Your task to perform on an android device: Open calendar and show me the first week of next month Image 0: 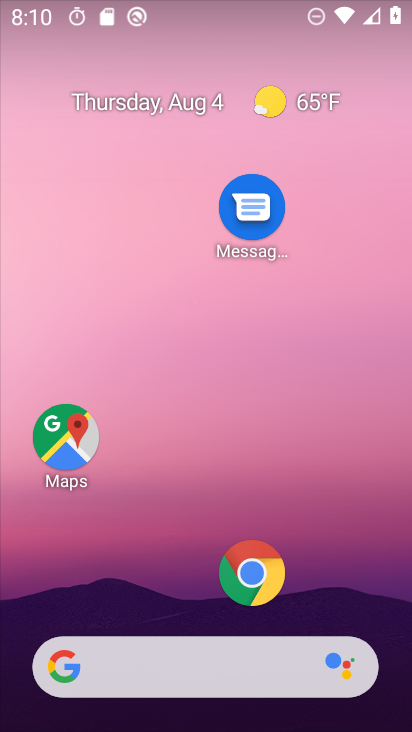
Step 0: press home button
Your task to perform on an android device: Open calendar and show me the first week of next month Image 1: 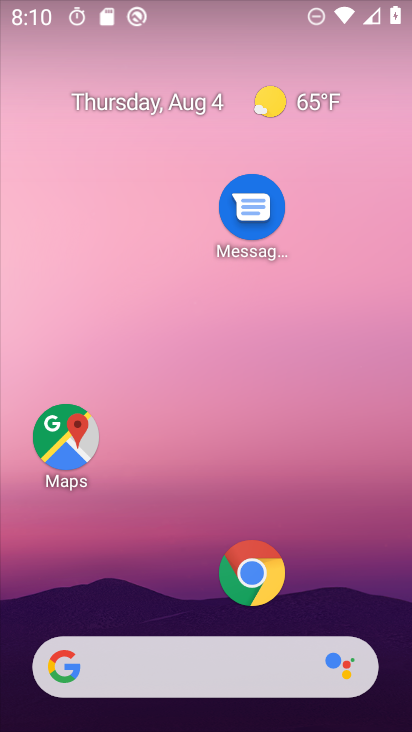
Step 1: drag from (141, 616) to (238, 97)
Your task to perform on an android device: Open calendar and show me the first week of next month Image 2: 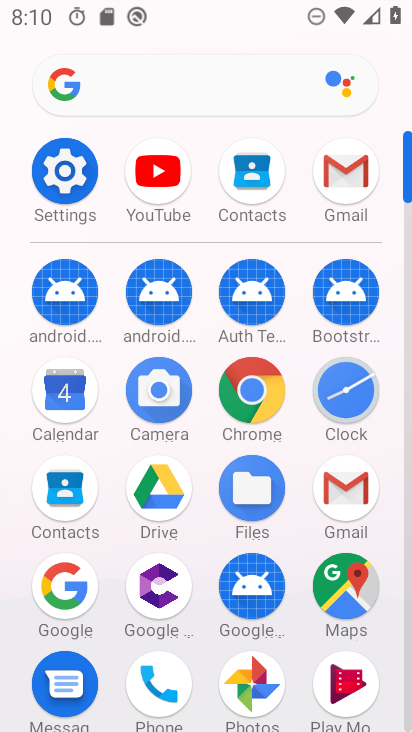
Step 2: click (40, 409)
Your task to perform on an android device: Open calendar and show me the first week of next month Image 3: 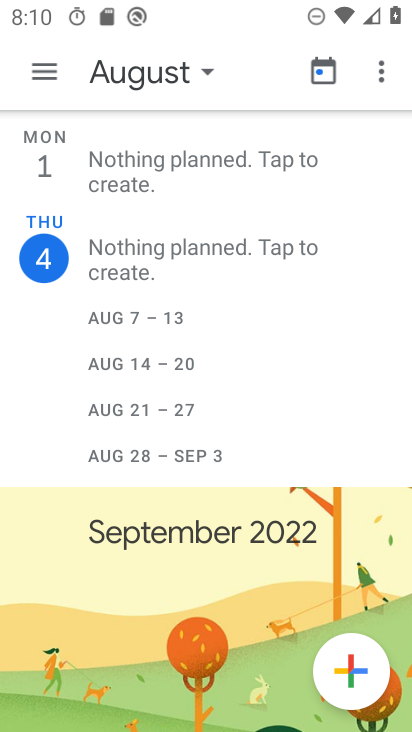
Step 3: click (207, 71)
Your task to perform on an android device: Open calendar and show me the first week of next month Image 4: 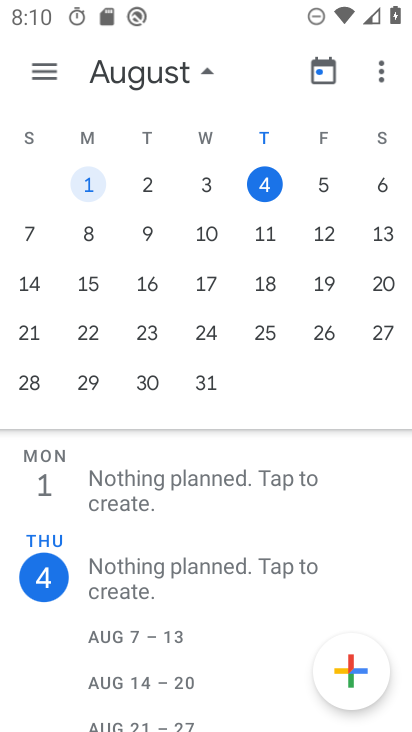
Step 4: drag from (295, 225) to (110, 163)
Your task to perform on an android device: Open calendar and show me the first week of next month Image 5: 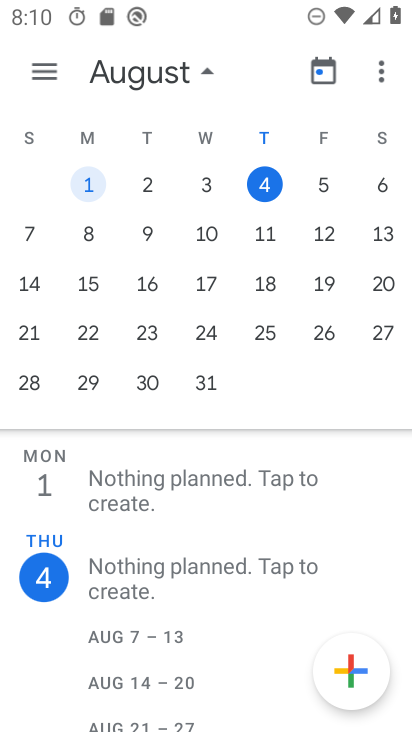
Step 5: drag from (325, 252) to (46, 227)
Your task to perform on an android device: Open calendar and show me the first week of next month Image 6: 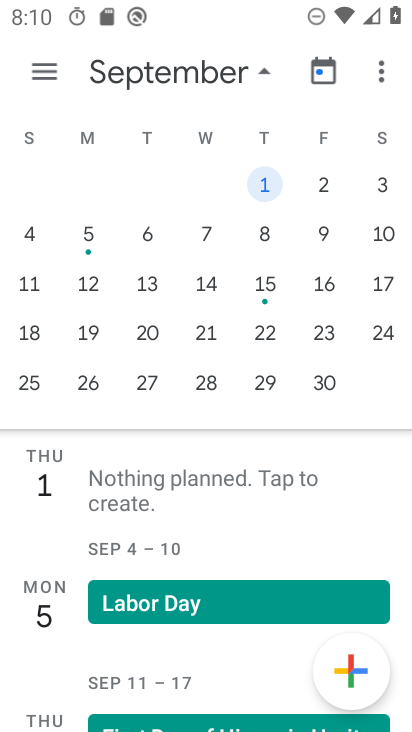
Step 6: click (302, 163)
Your task to perform on an android device: Open calendar and show me the first week of next month Image 7: 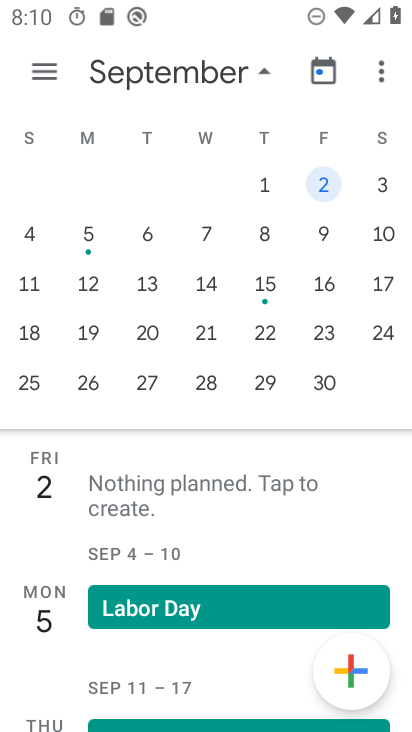
Step 7: click (389, 194)
Your task to perform on an android device: Open calendar and show me the first week of next month Image 8: 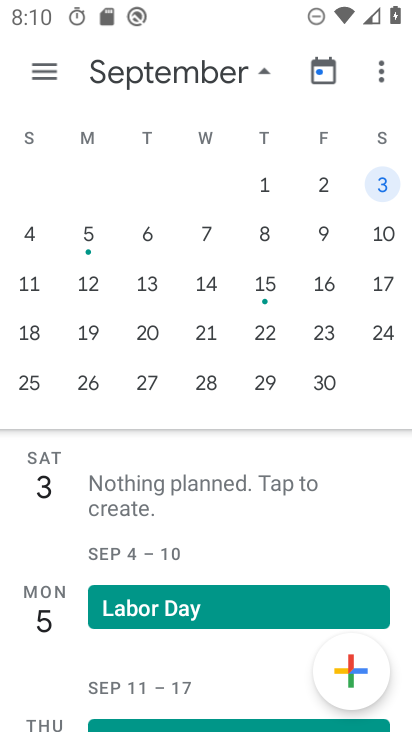
Step 8: click (30, 248)
Your task to perform on an android device: Open calendar and show me the first week of next month Image 9: 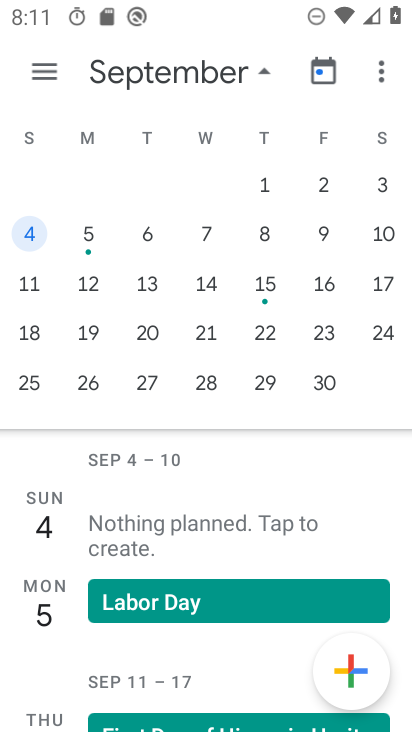
Step 9: click (89, 232)
Your task to perform on an android device: Open calendar and show me the first week of next month Image 10: 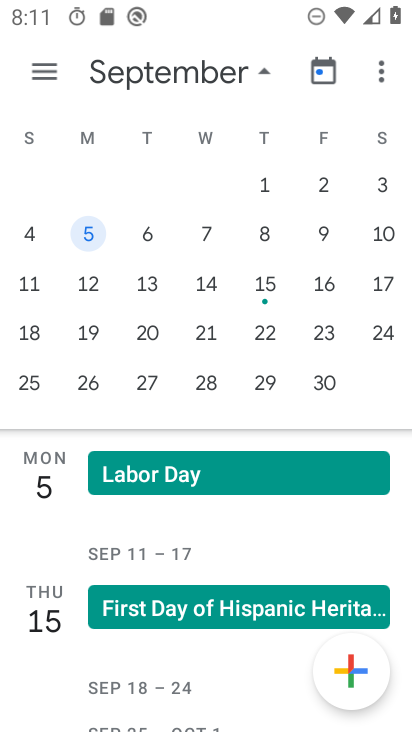
Step 10: click (148, 239)
Your task to perform on an android device: Open calendar and show me the first week of next month Image 11: 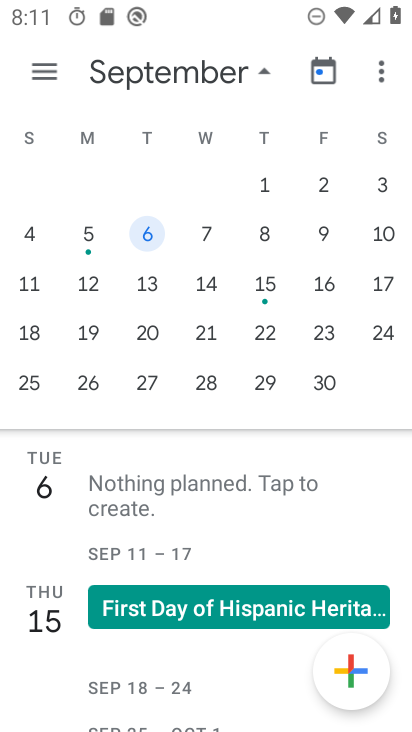
Step 11: click (205, 245)
Your task to perform on an android device: Open calendar and show me the first week of next month Image 12: 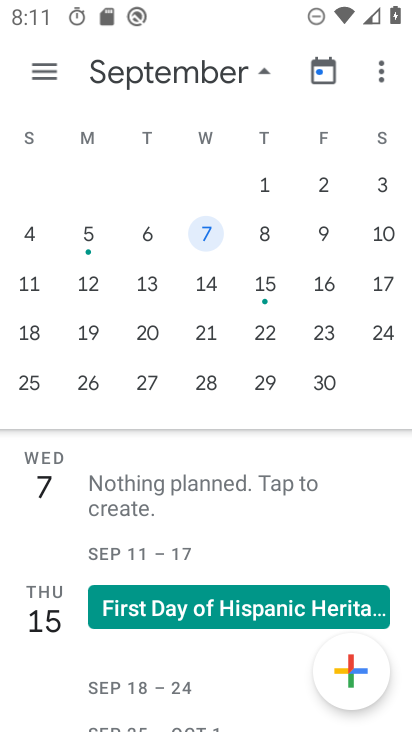
Step 12: task complete